Your task to perform on an android device: Open the phone app and click the voicemail tab. Image 0: 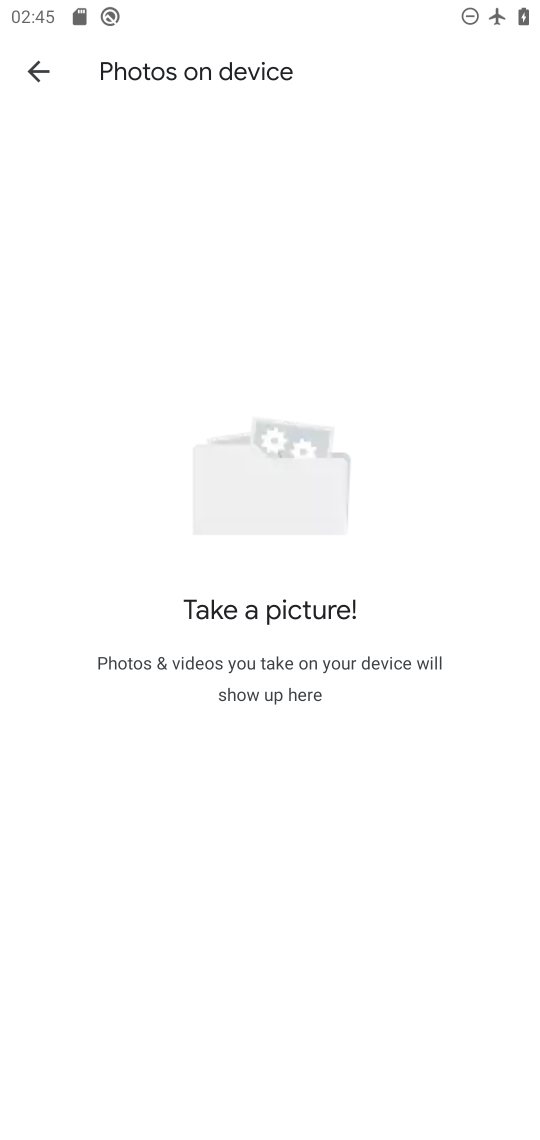
Step 0: press home button
Your task to perform on an android device: Open the phone app and click the voicemail tab. Image 1: 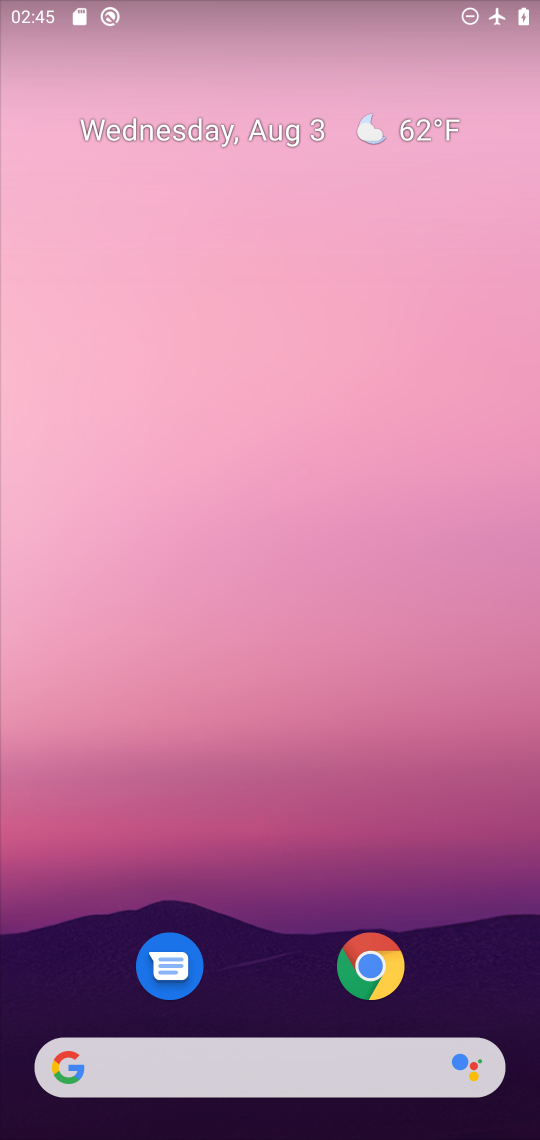
Step 1: drag from (239, 928) to (239, 254)
Your task to perform on an android device: Open the phone app and click the voicemail tab. Image 2: 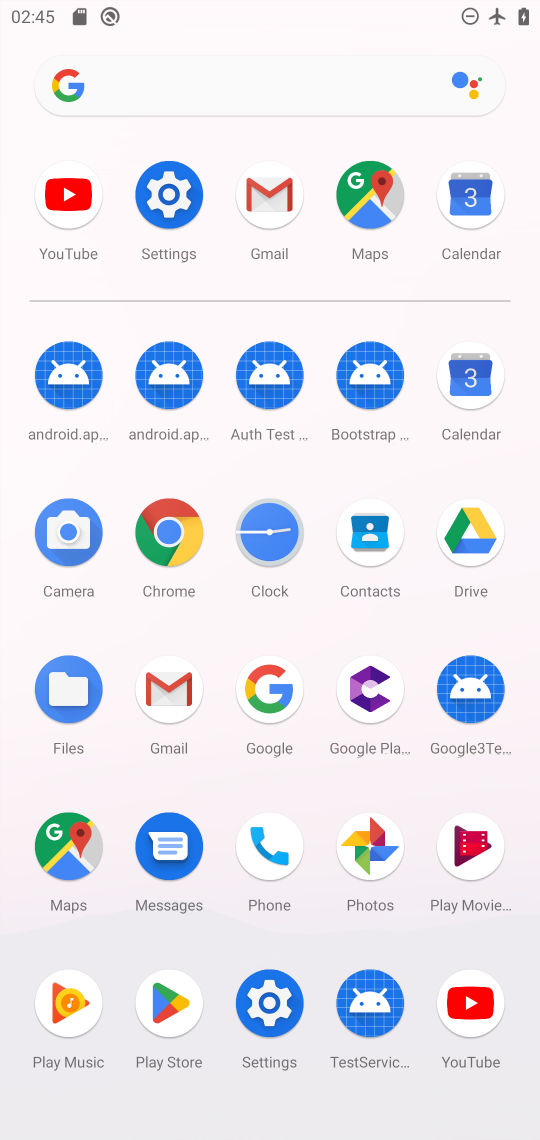
Step 2: click (250, 830)
Your task to perform on an android device: Open the phone app and click the voicemail tab. Image 3: 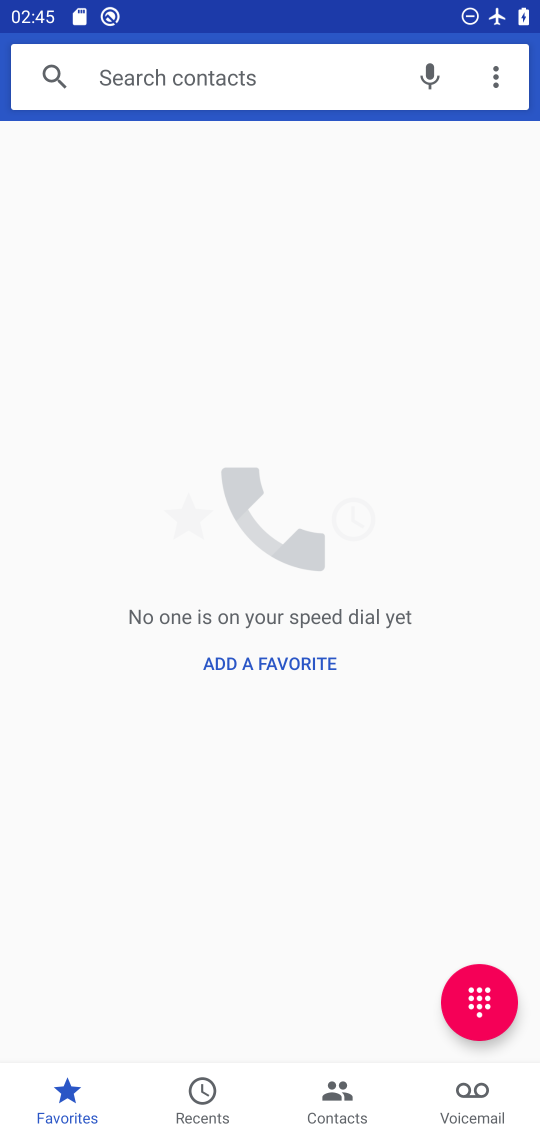
Step 3: click (474, 1097)
Your task to perform on an android device: Open the phone app and click the voicemail tab. Image 4: 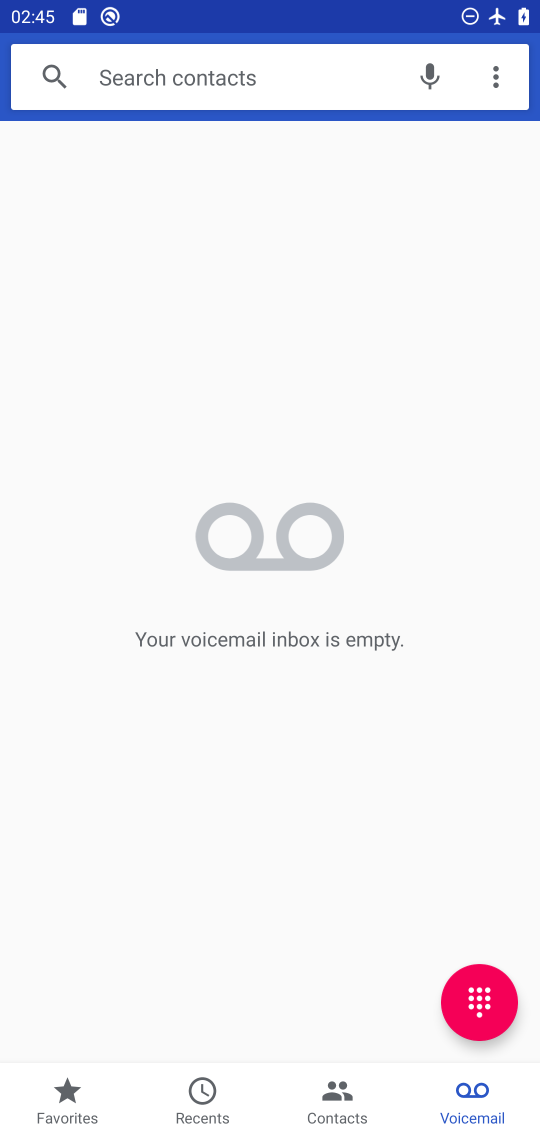
Step 4: task complete